Your task to perform on an android device: Open display settings Image 0: 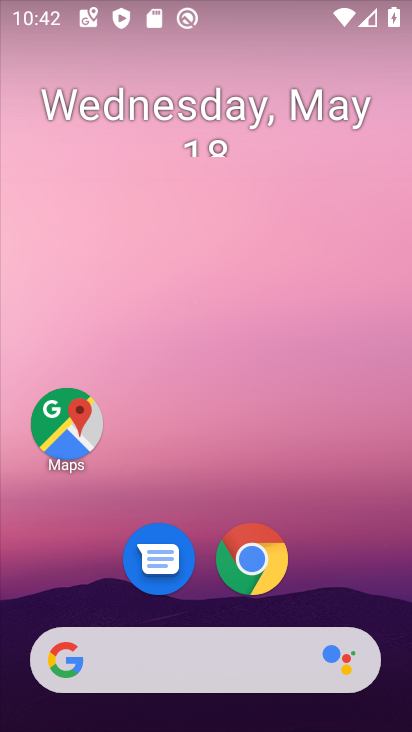
Step 0: drag from (213, 567) to (273, 85)
Your task to perform on an android device: Open display settings Image 1: 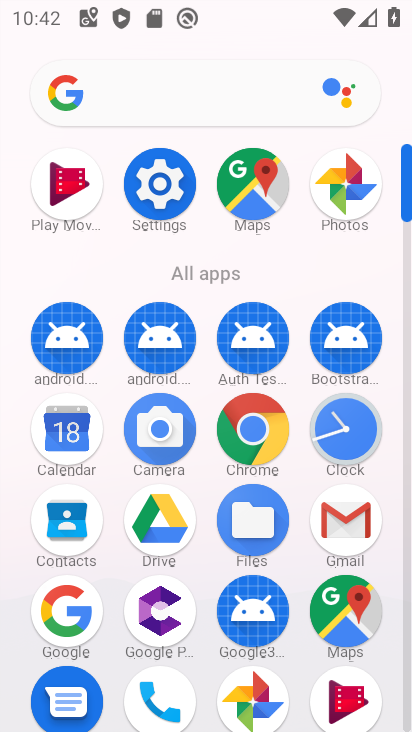
Step 1: click (157, 178)
Your task to perform on an android device: Open display settings Image 2: 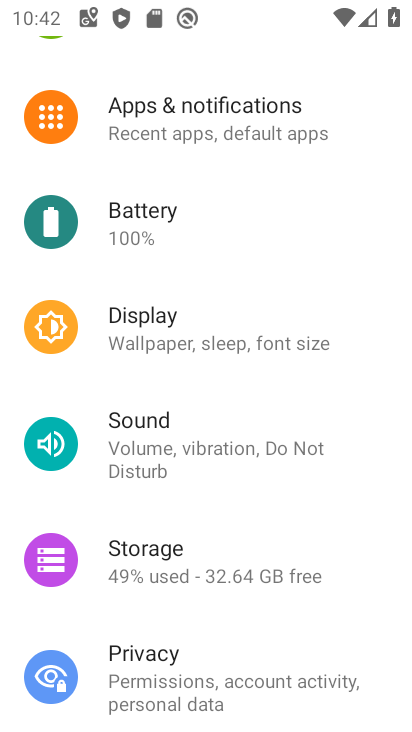
Step 2: click (176, 340)
Your task to perform on an android device: Open display settings Image 3: 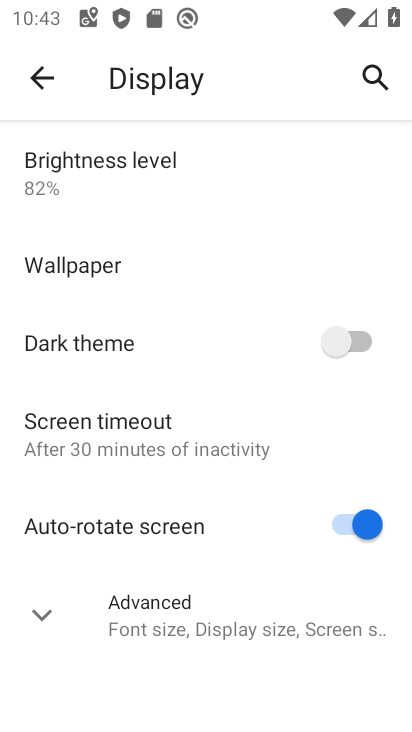
Step 3: task complete